Your task to perform on an android device: add a contact Image 0: 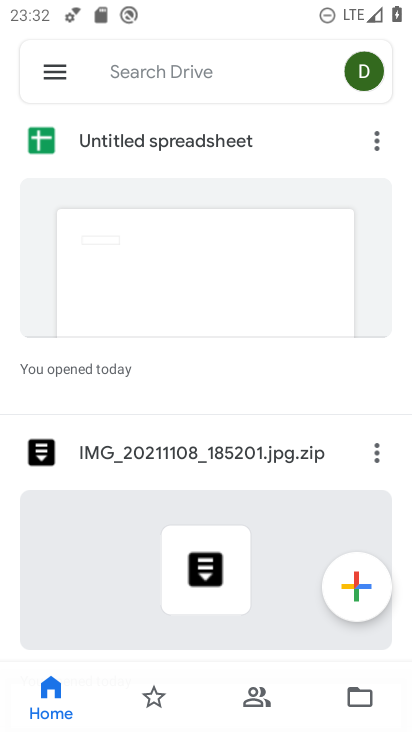
Step 0: press home button
Your task to perform on an android device: add a contact Image 1: 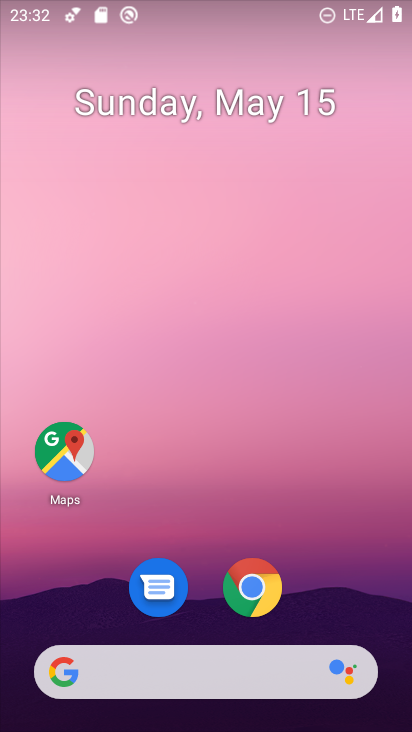
Step 1: drag from (204, 622) to (218, 194)
Your task to perform on an android device: add a contact Image 2: 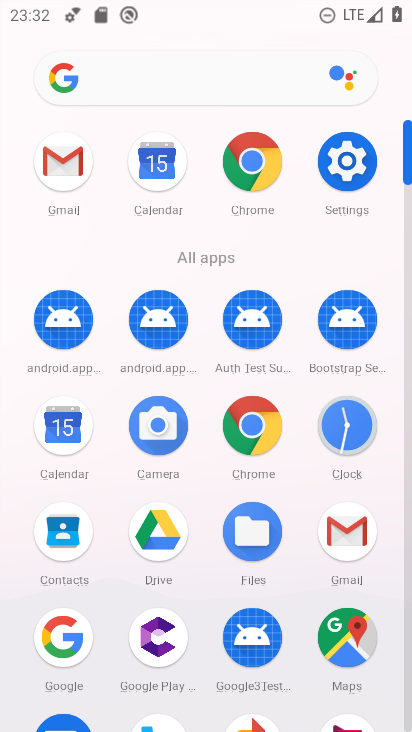
Step 2: click (67, 537)
Your task to perform on an android device: add a contact Image 3: 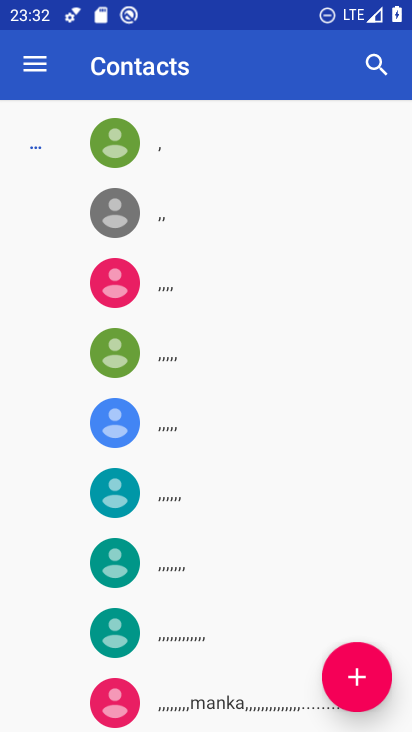
Step 3: click (346, 662)
Your task to perform on an android device: add a contact Image 4: 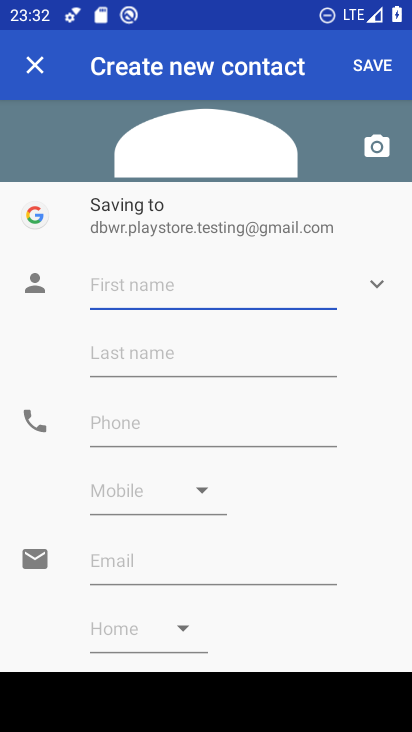
Step 4: type "bfd"
Your task to perform on an android device: add a contact Image 5: 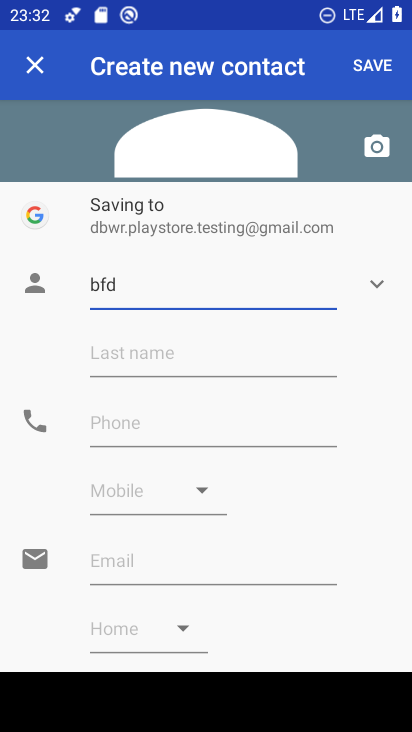
Step 5: click (182, 424)
Your task to perform on an android device: add a contact Image 6: 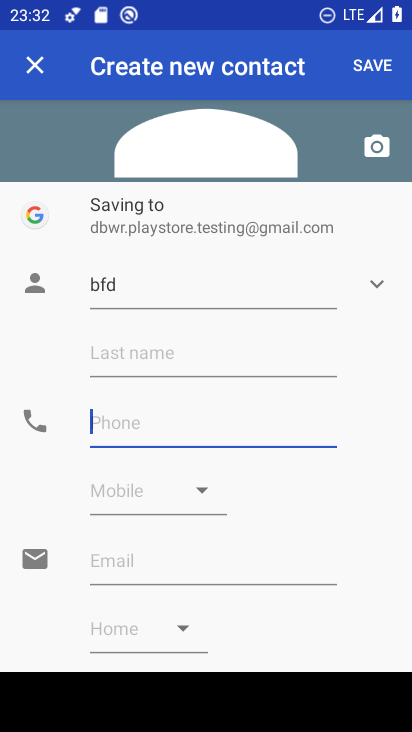
Step 6: type "976655676867"
Your task to perform on an android device: add a contact Image 7: 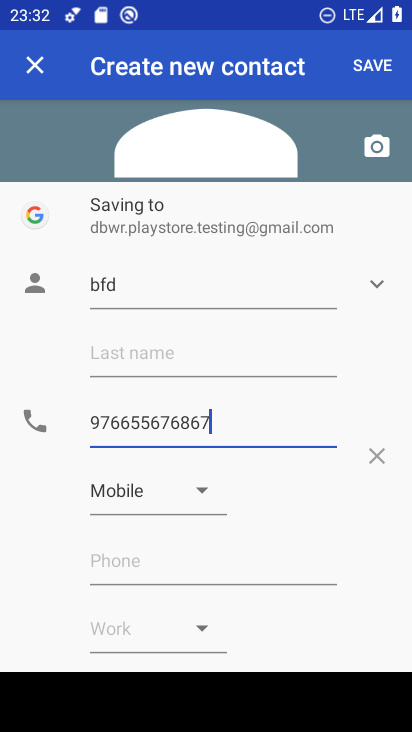
Step 7: click (372, 60)
Your task to perform on an android device: add a contact Image 8: 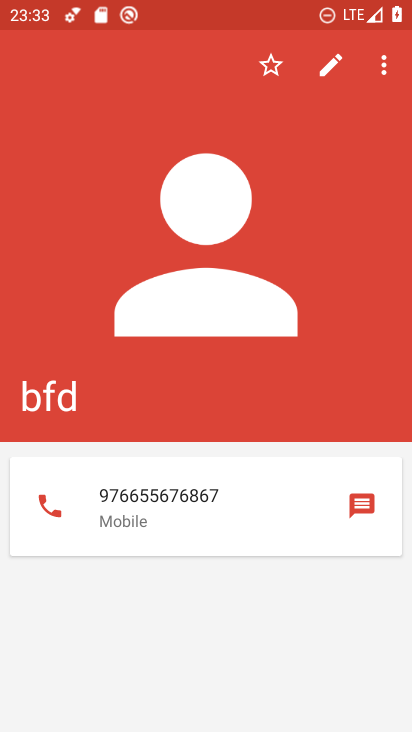
Step 8: task complete